Your task to perform on an android device: turn off data saver in the chrome app Image 0: 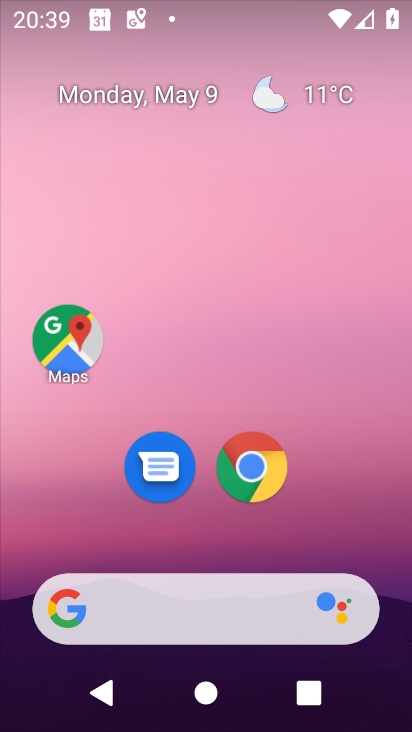
Step 0: drag from (346, 544) to (265, 250)
Your task to perform on an android device: turn off data saver in the chrome app Image 1: 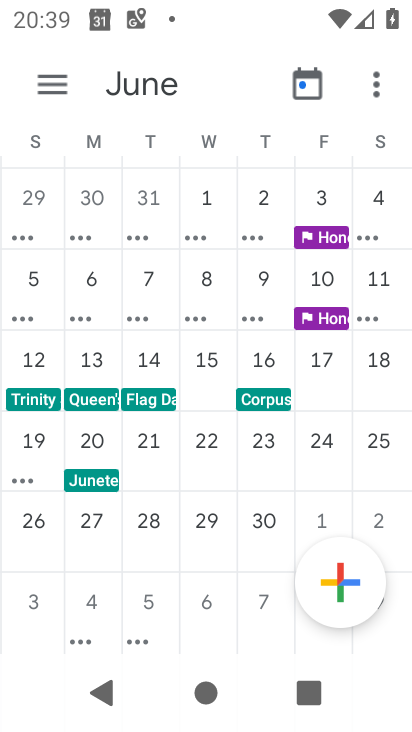
Step 1: press home button
Your task to perform on an android device: turn off data saver in the chrome app Image 2: 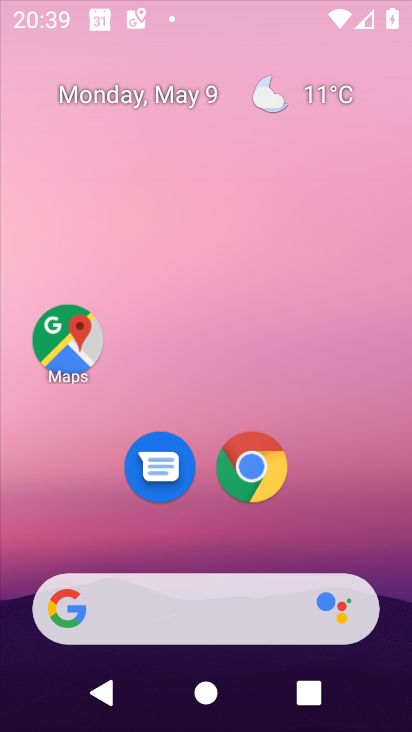
Step 2: drag from (282, 545) to (283, 281)
Your task to perform on an android device: turn off data saver in the chrome app Image 3: 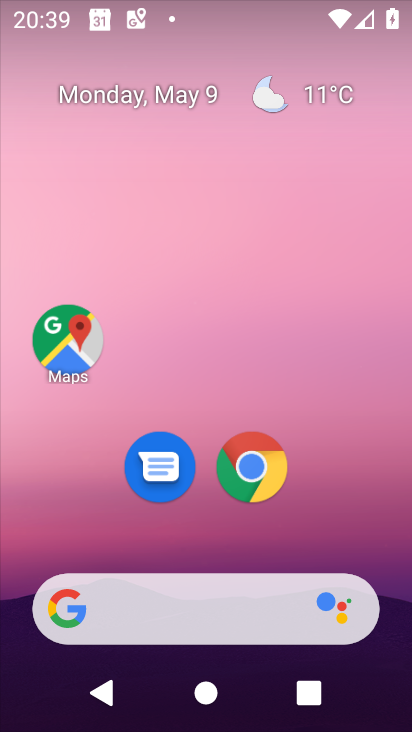
Step 3: click (240, 452)
Your task to perform on an android device: turn off data saver in the chrome app Image 4: 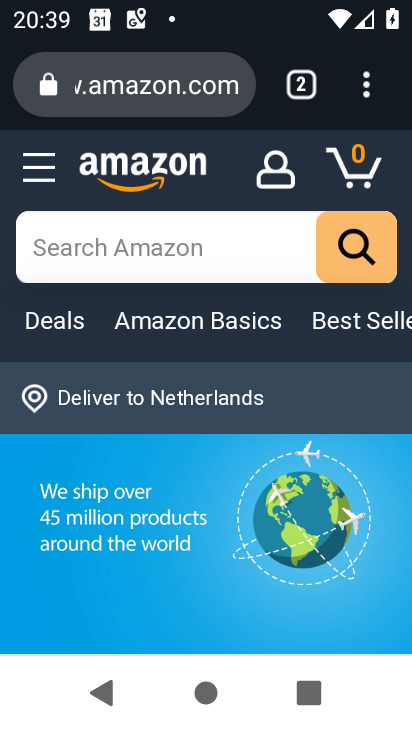
Step 4: click (352, 78)
Your task to perform on an android device: turn off data saver in the chrome app Image 5: 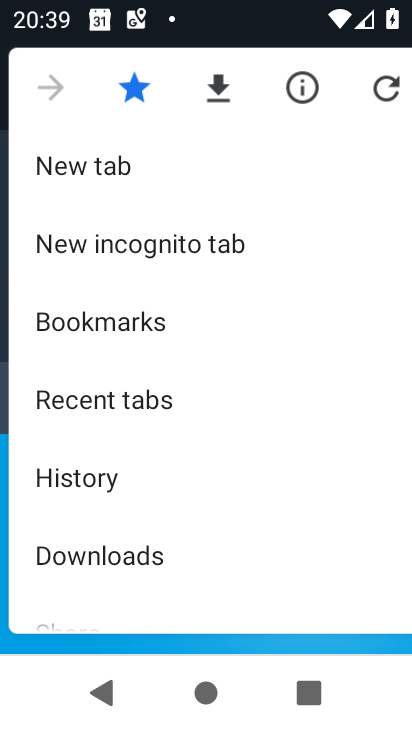
Step 5: drag from (138, 577) to (153, 377)
Your task to perform on an android device: turn off data saver in the chrome app Image 6: 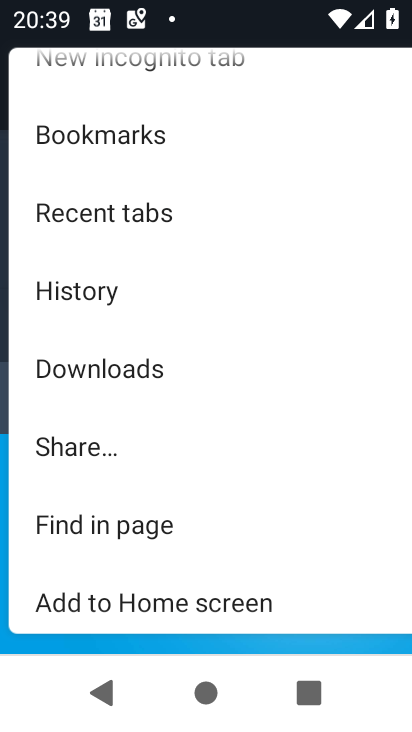
Step 6: drag from (154, 586) to (187, 282)
Your task to perform on an android device: turn off data saver in the chrome app Image 7: 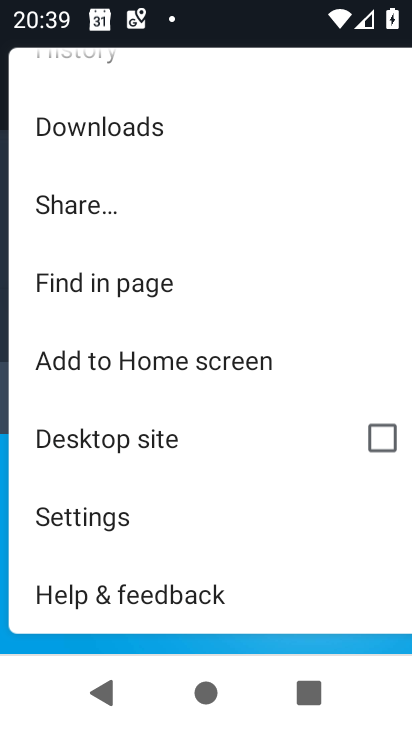
Step 7: click (123, 511)
Your task to perform on an android device: turn off data saver in the chrome app Image 8: 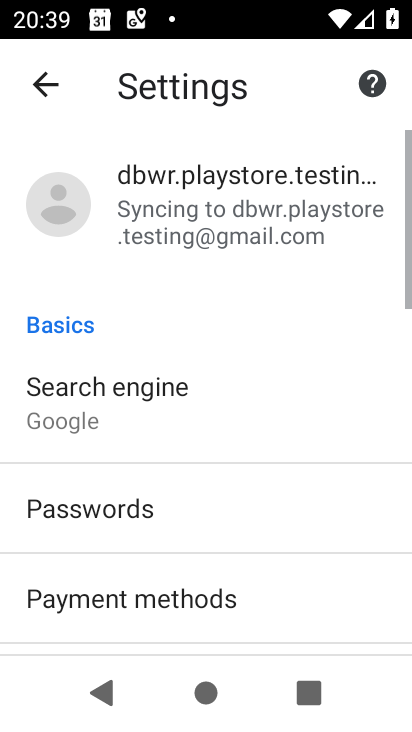
Step 8: drag from (214, 608) to (222, 210)
Your task to perform on an android device: turn off data saver in the chrome app Image 9: 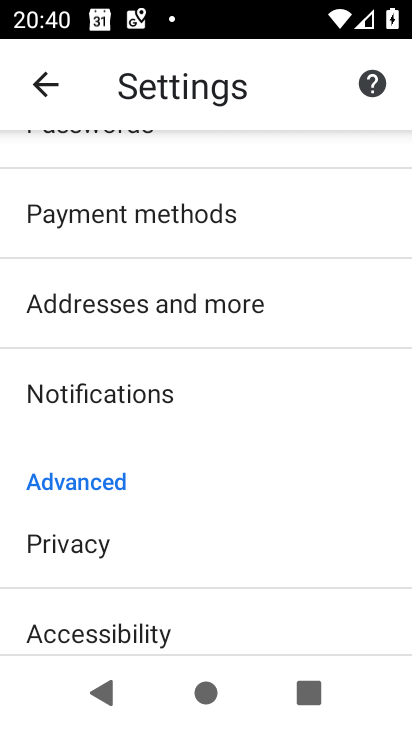
Step 9: drag from (131, 613) to (180, 221)
Your task to perform on an android device: turn off data saver in the chrome app Image 10: 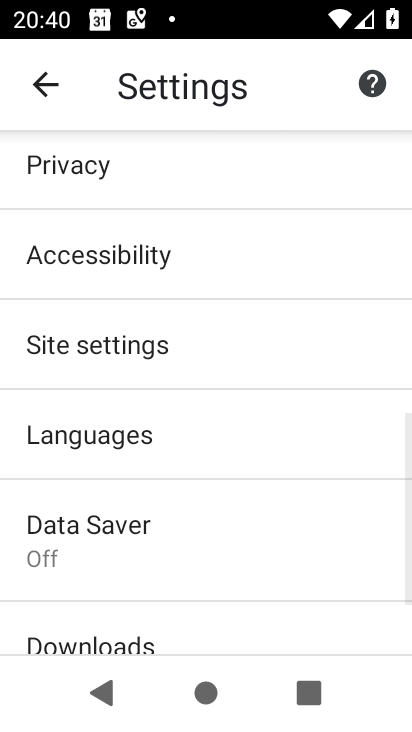
Step 10: click (174, 534)
Your task to perform on an android device: turn off data saver in the chrome app Image 11: 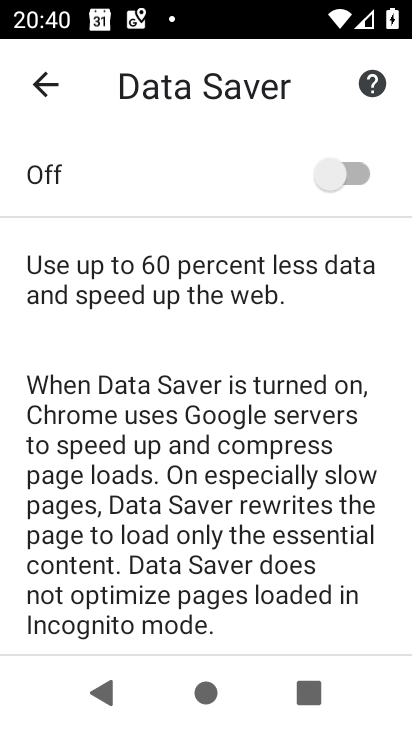
Step 11: task complete